Your task to perform on an android device: Open calendar and show me the third week of next month Image 0: 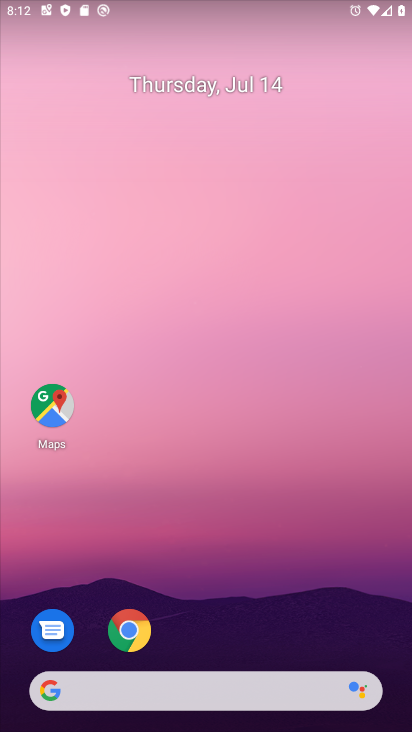
Step 0: drag from (225, 719) to (198, 230)
Your task to perform on an android device: Open calendar and show me the third week of next month Image 1: 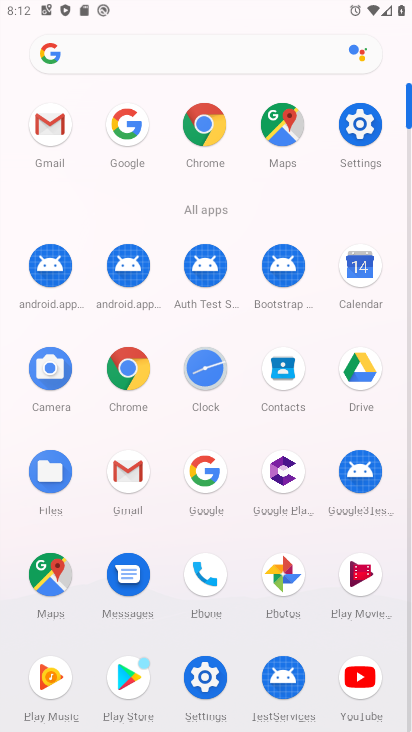
Step 1: click (363, 277)
Your task to perform on an android device: Open calendar and show me the third week of next month Image 2: 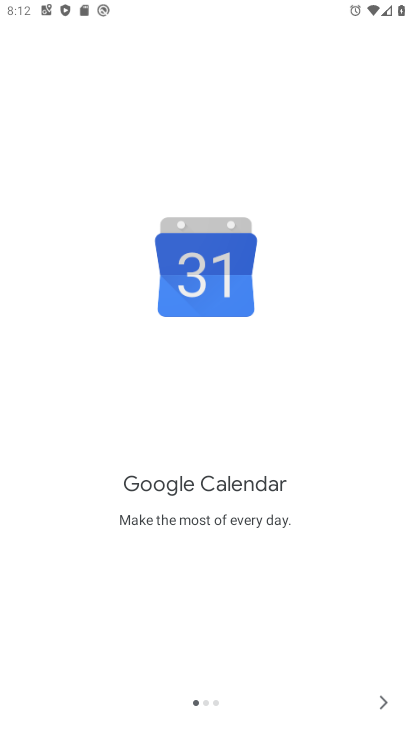
Step 2: click (384, 701)
Your task to perform on an android device: Open calendar and show me the third week of next month Image 3: 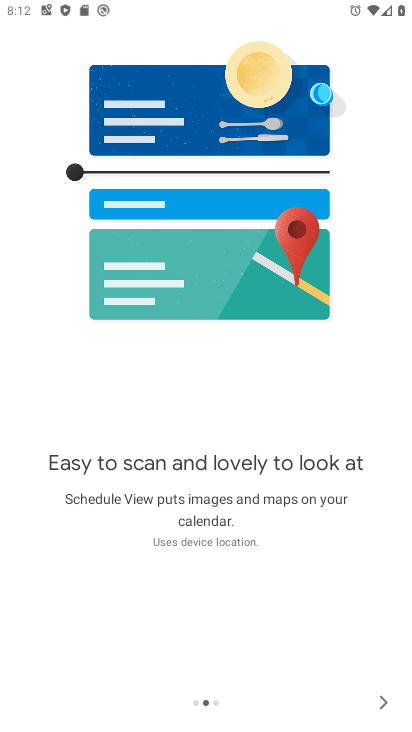
Step 3: click (384, 701)
Your task to perform on an android device: Open calendar and show me the third week of next month Image 4: 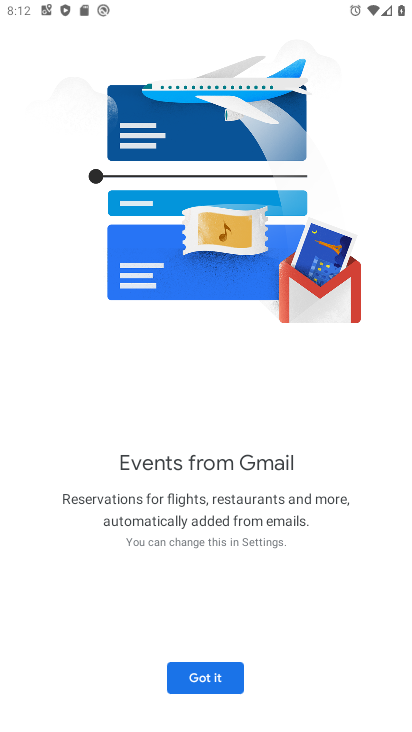
Step 4: click (194, 680)
Your task to perform on an android device: Open calendar and show me the third week of next month Image 5: 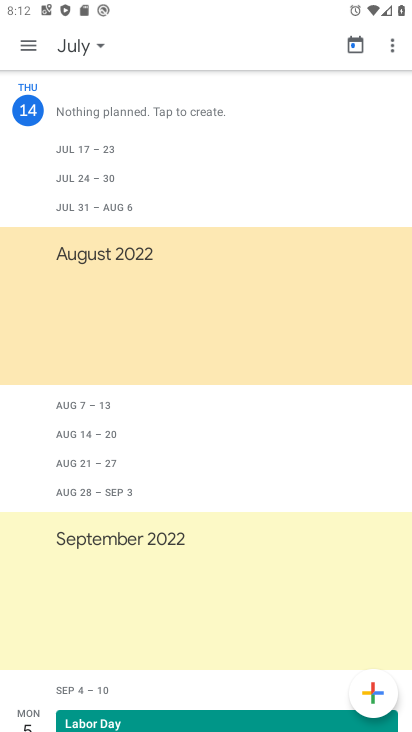
Step 5: click (100, 43)
Your task to perform on an android device: Open calendar and show me the third week of next month Image 6: 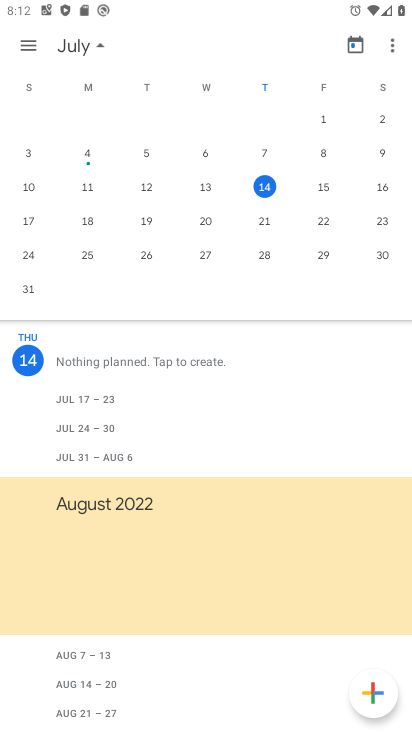
Step 6: drag from (340, 209) to (38, 218)
Your task to perform on an android device: Open calendar and show me the third week of next month Image 7: 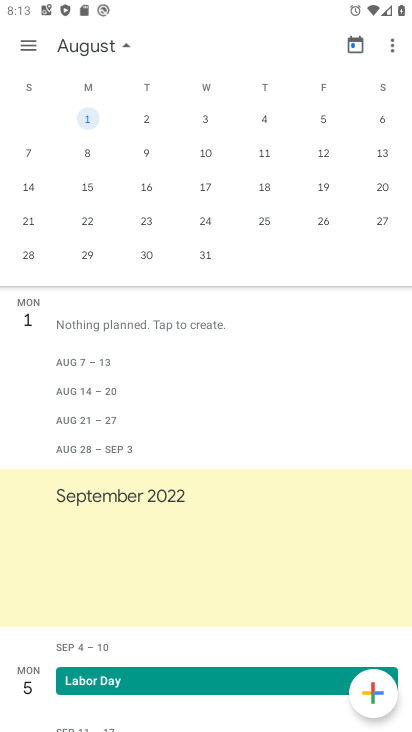
Step 7: click (90, 185)
Your task to perform on an android device: Open calendar and show me the third week of next month Image 8: 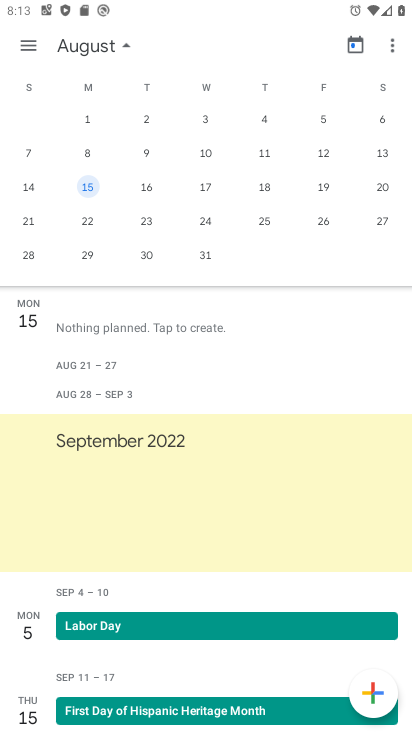
Step 8: click (37, 45)
Your task to perform on an android device: Open calendar and show me the third week of next month Image 9: 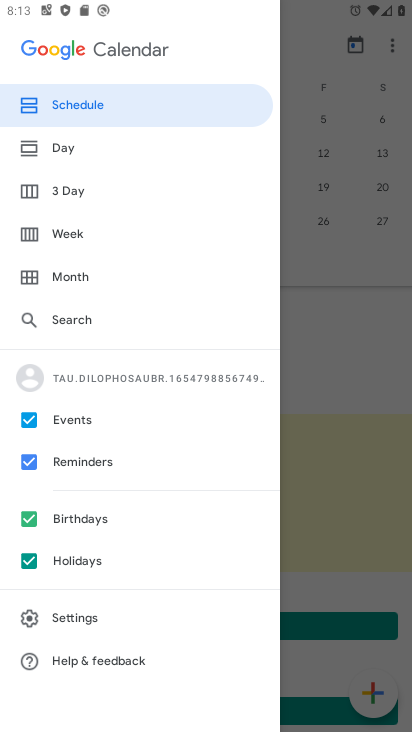
Step 9: click (78, 226)
Your task to perform on an android device: Open calendar and show me the third week of next month Image 10: 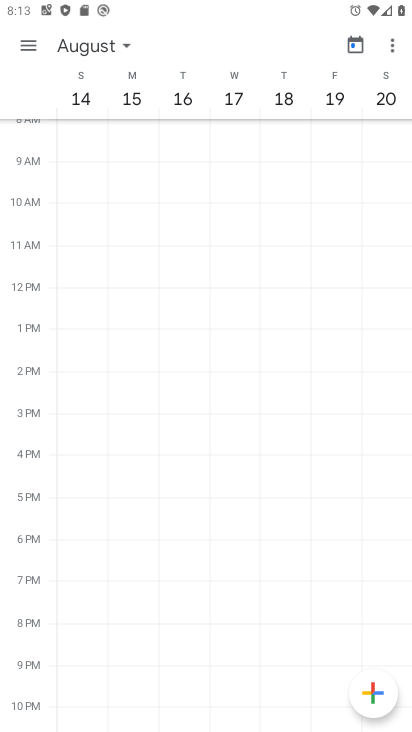
Step 10: task complete